Your task to perform on an android device: turn off picture-in-picture Image 0: 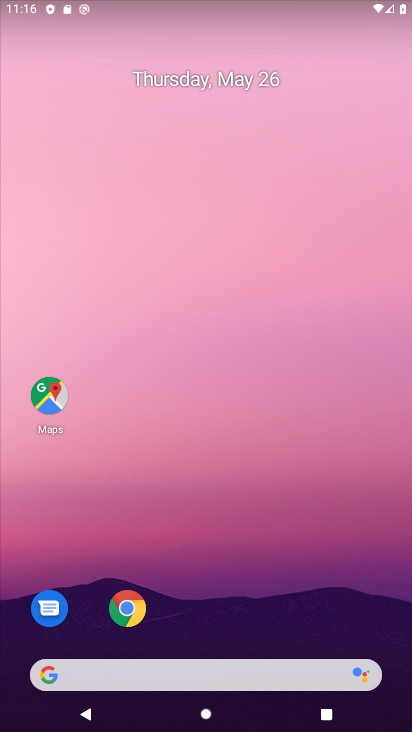
Step 0: click (138, 606)
Your task to perform on an android device: turn off picture-in-picture Image 1: 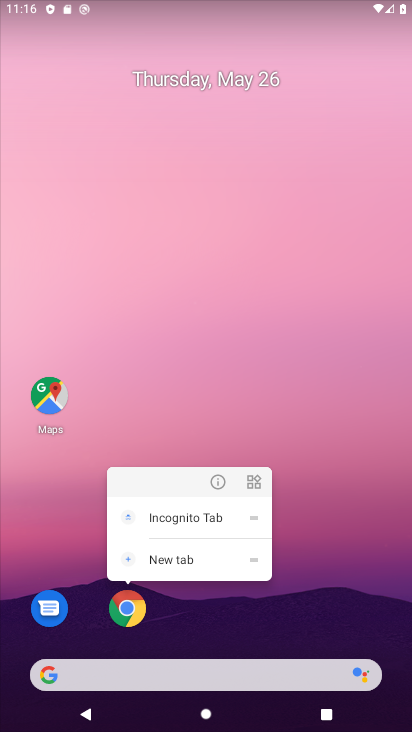
Step 1: click (218, 476)
Your task to perform on an android device: turn off picture-in-picture Image 2: 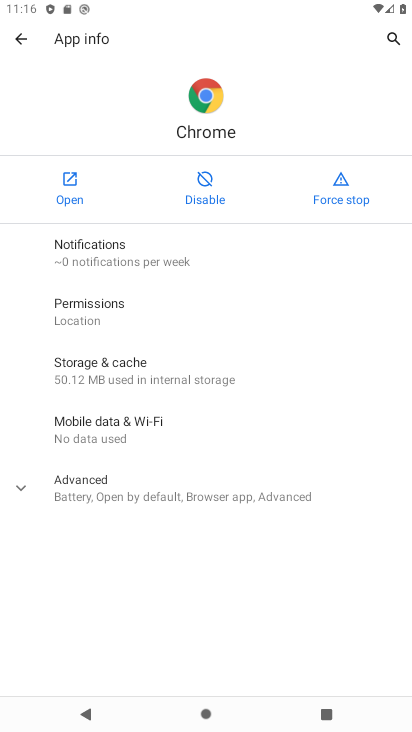
Step 2: click (195, 501)
Your task to perform on an android device: turn off picture-in-picture Image 3: 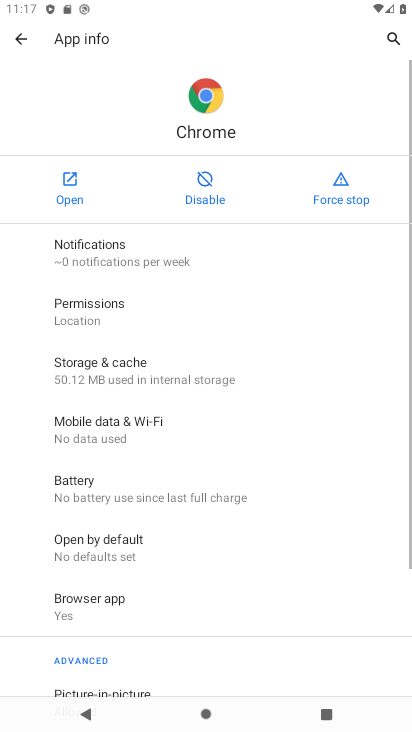
Step 3: drag from (275, 628) to (402, 65)
Your task to perform on an android device: turn off picture-in-picture Image 4: 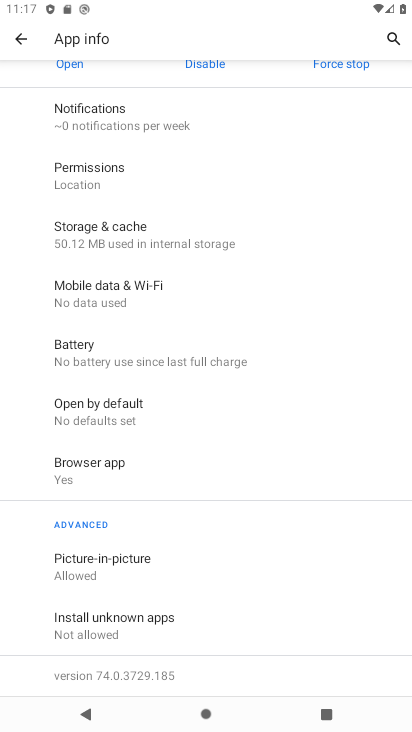
Step 4: click (153, 571)
Your task to perform on an android device: turn off picture-in-picture Image 5: 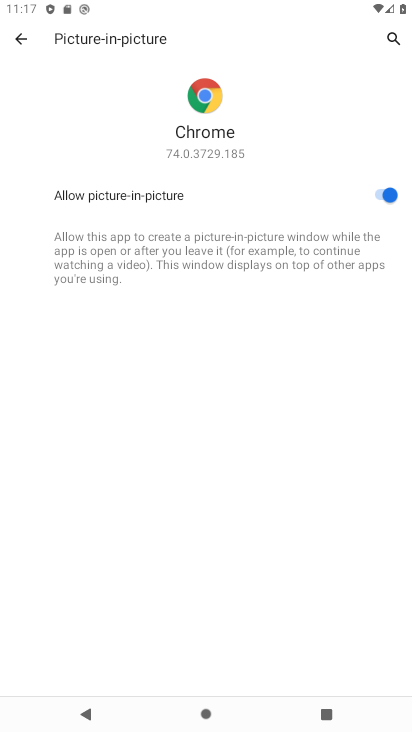
Step 5: click (388, 185)
Your task to perform on an android device: turn off picture-in-picture Image 6: 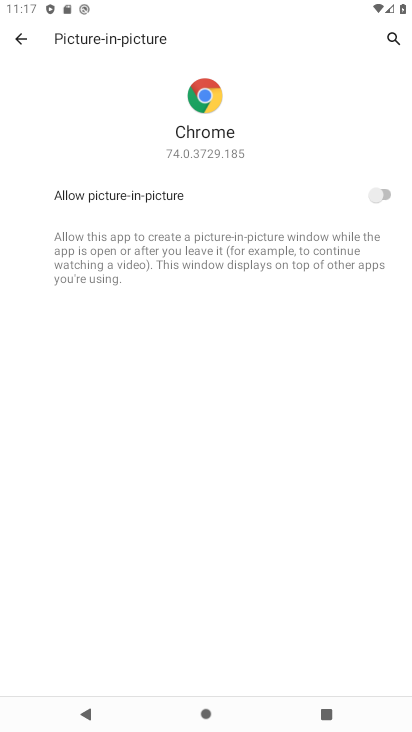
Step 6: task complete